Your task to perform on an android device: turn off wifi Image 0: 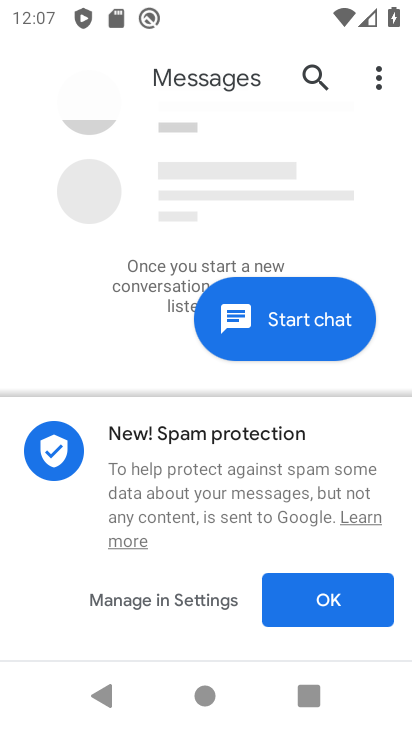
Step 0: press home button
Your task to perform on an android device: turn off wifi Image 1: 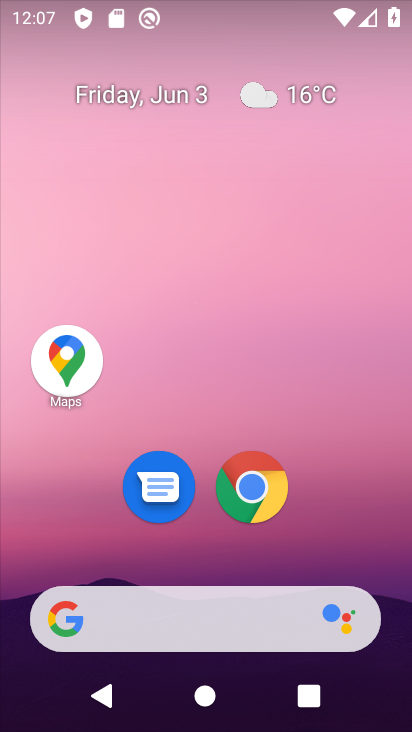
Step 1: drag from (375, 539) to (382, 169)
Your task to perform on an android device: turn off wifi Image 2: 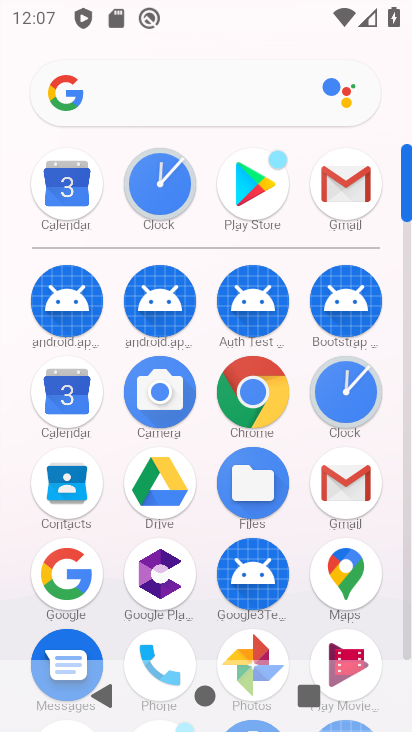
Step 2: drag from (107, 631) to (103, 359)
Your task to perform on an android device: turn off wifi Image 3: 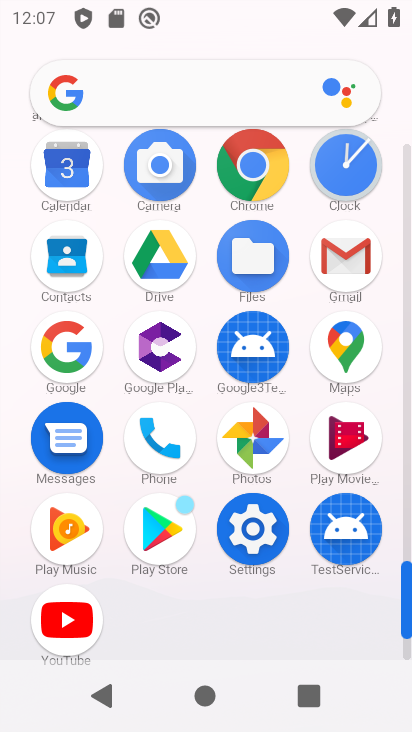
Step 3: click (271, 519)
Your task to perform on an android device: turn off wifi Image 4: 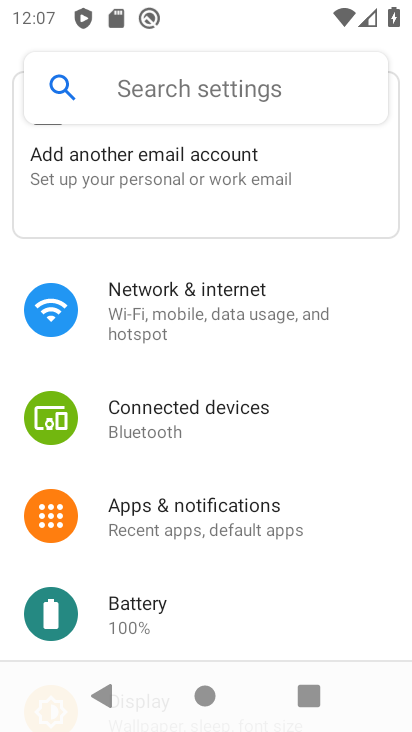
Step 4: click (226, 303)
Your task to perform on an android device: turn off wifi Image 5: 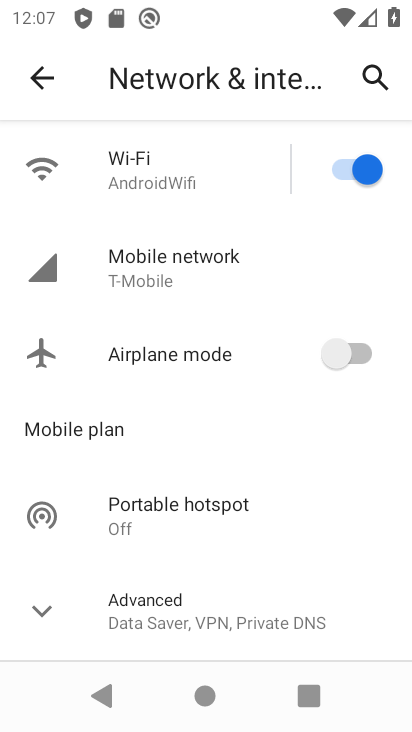
Step 5: click (349, 170)
Your task to perform on an android device: turn off wifi Image 6: 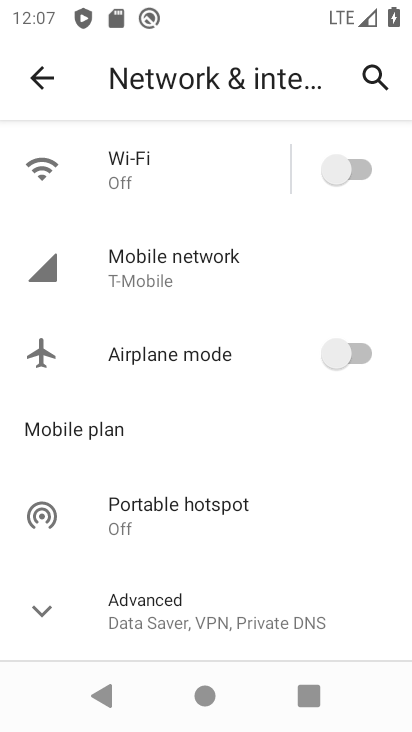
Step 6: task complete